Your task to perform on an android device: Search for vegetarian restaurants on Maps Image 0: 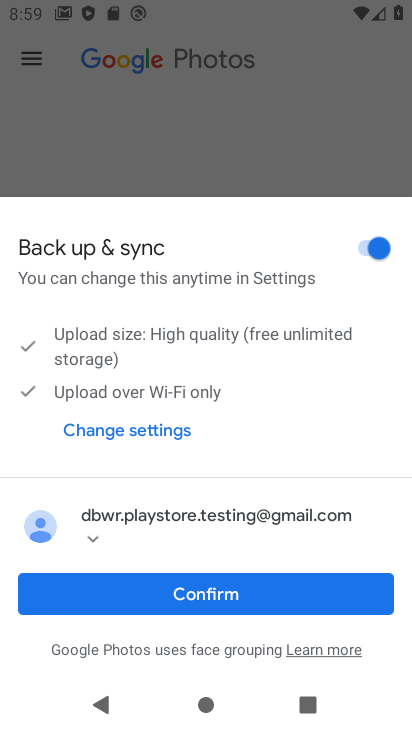
Step 0: press home button
Your task to perform on an android device: Search for vegetarian restaurants on Maps Image 1: 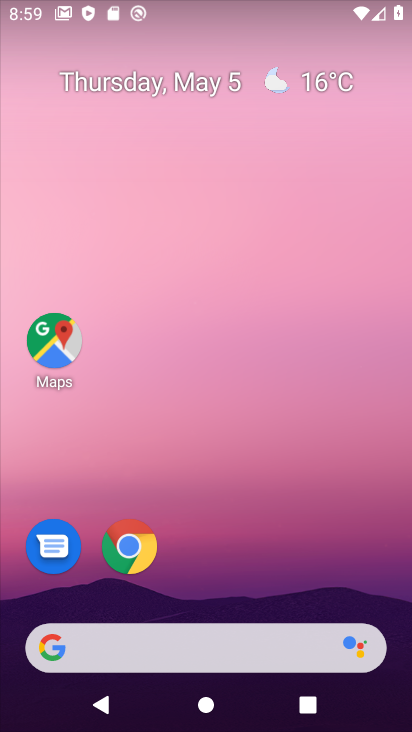
Step 1: drag from (228, 607) to (246, 119)
Your task to perform on an android device: Search for vegetarian restaurants on Maps Image 2: 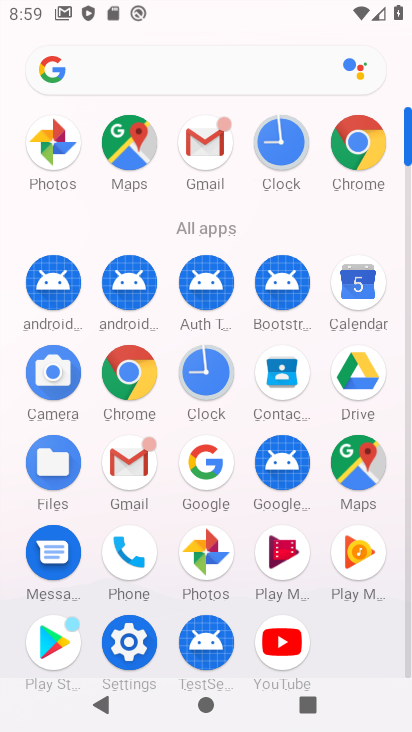
Step 2: click (353, 459)
Your task to perform on an android device: Search for vegetarian restaurants on Maps Image 3: 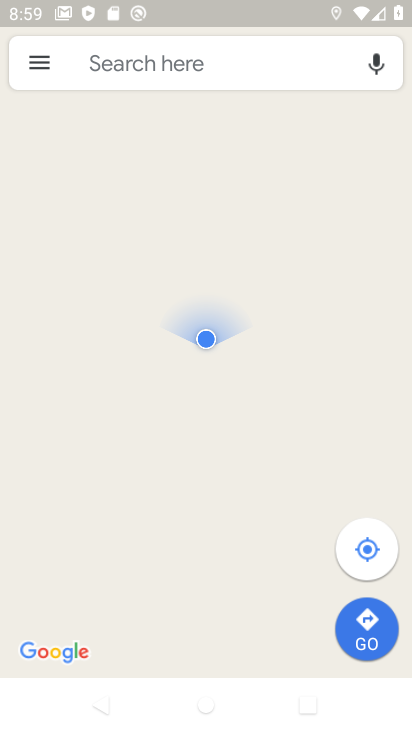
Step 3: click (193, 53)
Your task to perform on an android device: Search for vegetarian restaurants on Maps Image 4: 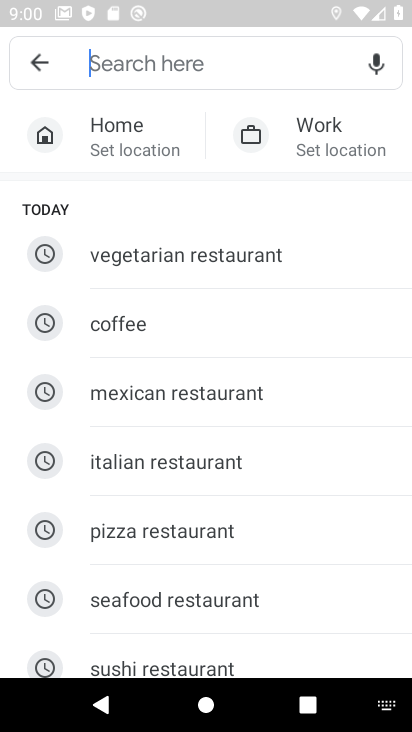
Step 4: type "vegetarian restaurants"
Your task to perform on an android device: Search for vegetarian restaurants on Maps Image 5: 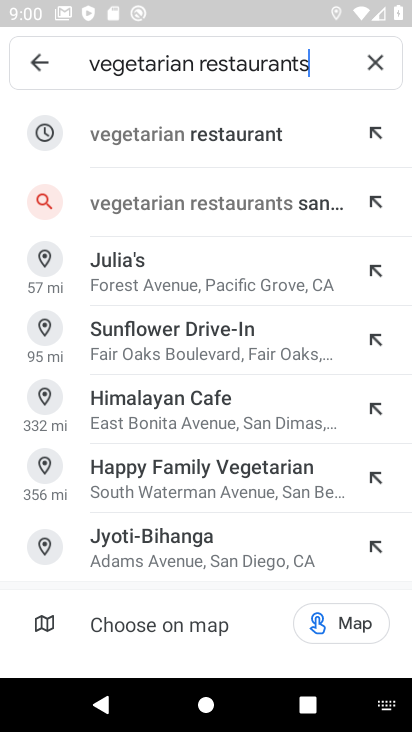
Step 5: click (162, 137)
Your task to perform on an android device: Search for vegetarian restaurants on Maps Image 6: 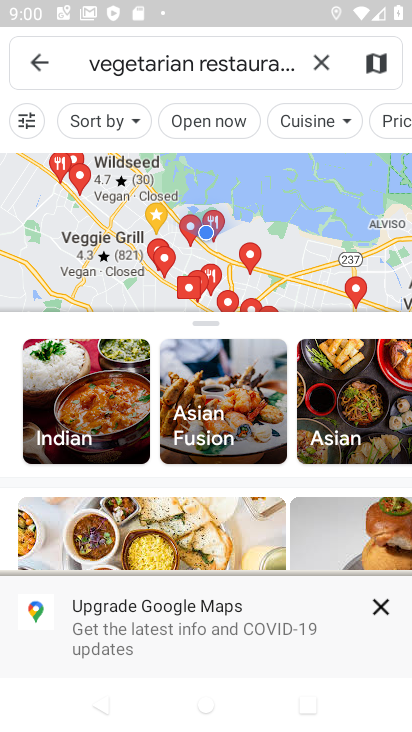
Step 6: task complete